Your task to perform on an android device: turn on notifications settings in the gmail app Image 0: 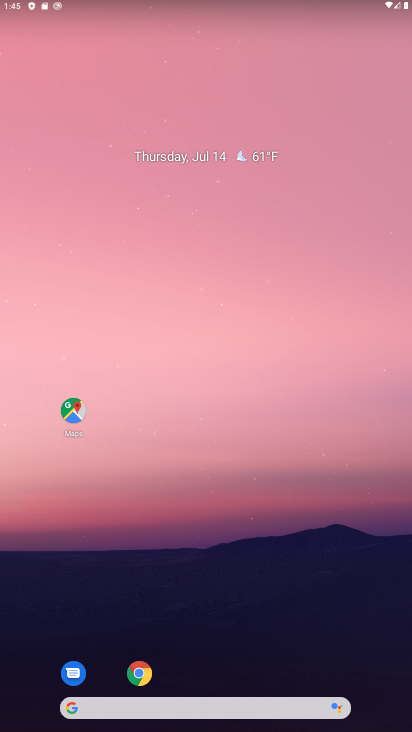
Step 0: drag from (200, 678) to (181, 76)
Your task to perform on an android device: turn on notifications settings in the gmail app Image 1: 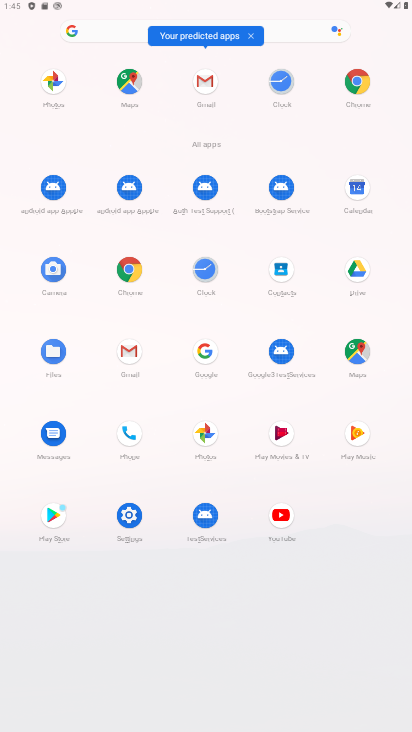
Step 1: click (197, 75)
Your task to perform on an android device: turn on notifications settings in the gmail app Image 2: 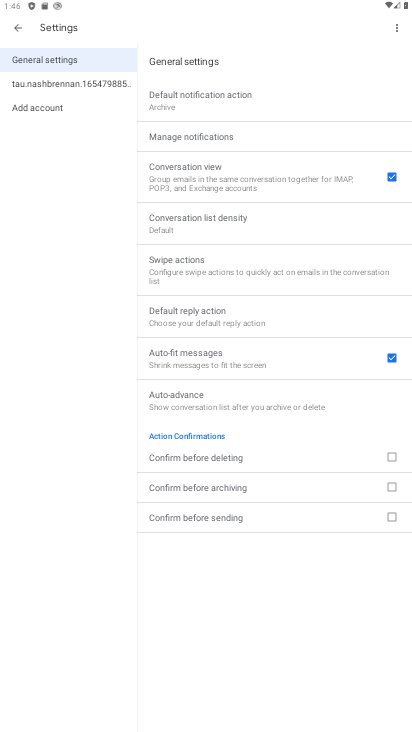
Step 2: click (90, 92)
Your task to perform on an android device: turn on notifications settings in the gmail app Image 3: 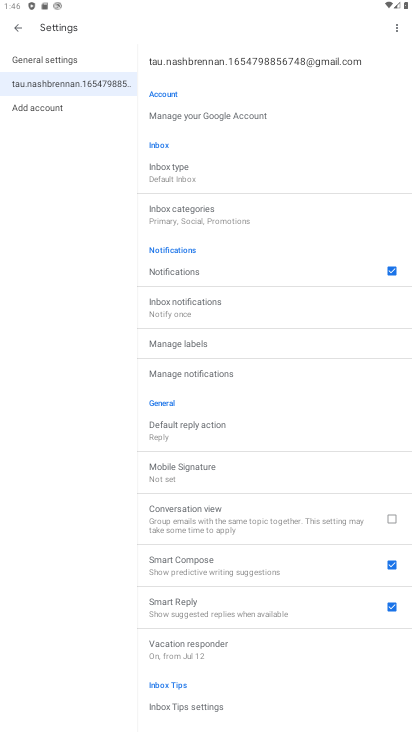
Step 3: click (205, 306)
Your task to perform on an android device: turn on notifications settings in the gmail app Image 4: 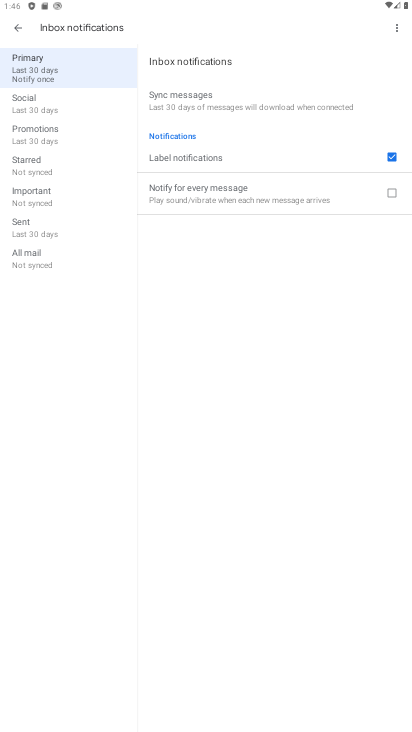
Step 4: task complete